Your task to perform on an android device: Go to wifi settings Image 0: 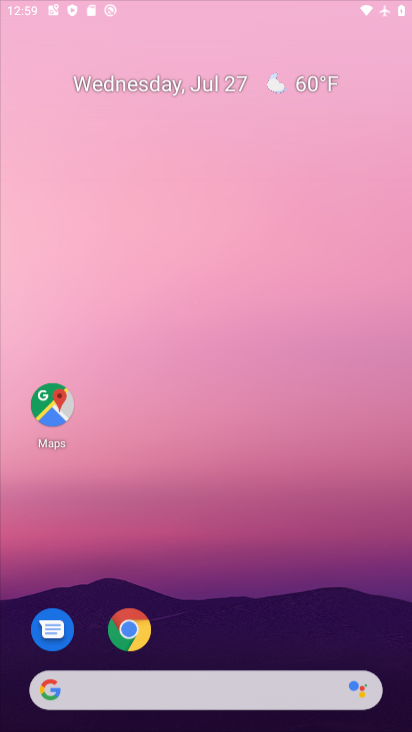
Step 0: press home button
Your task to perform on an android device: Go to wifi settings Image 1: 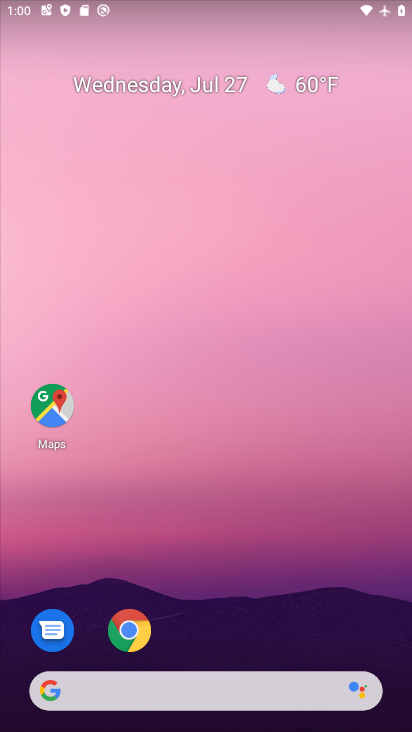
Step 1: drag from (237, 656) to (251, 6)
Your task to perform on an android device: Go to wifi settings Image 2: 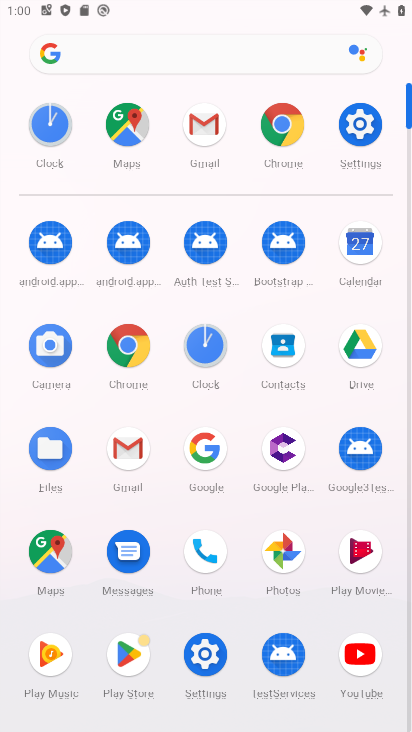
Step 2: click (360, 134)
Your task to perform on an android device: Go to wifi settings Image 3: 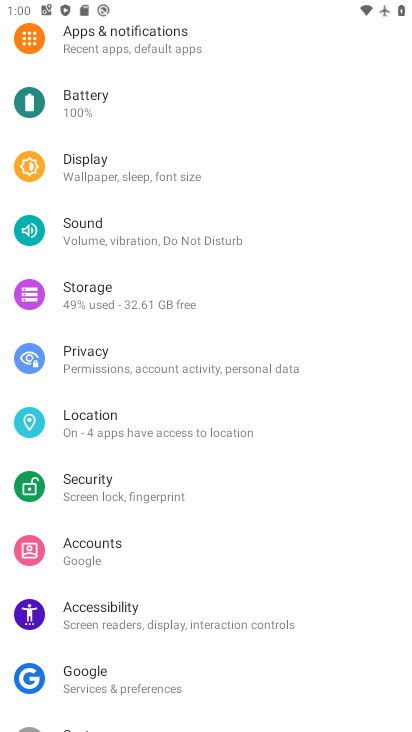
Step 3: drag from (265, 124) to (207, 703)
Your task to perform on an android device: Go to wifi settings Image 4: 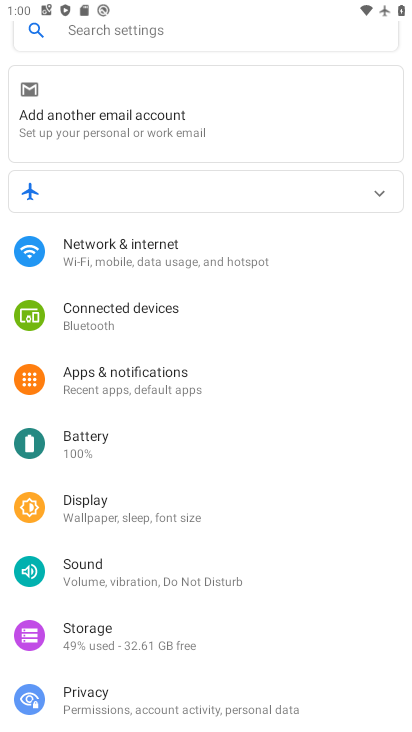
Step 4: click (122, 261)
Your task to perform on an android device: Go to wifi settings Image 5: 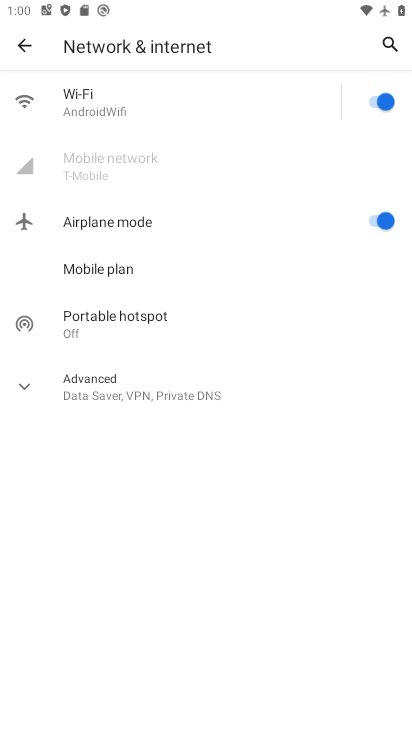
Step 5: click (82, 100)
Your task to perform on an android device: Go to wifi settings Image 6: 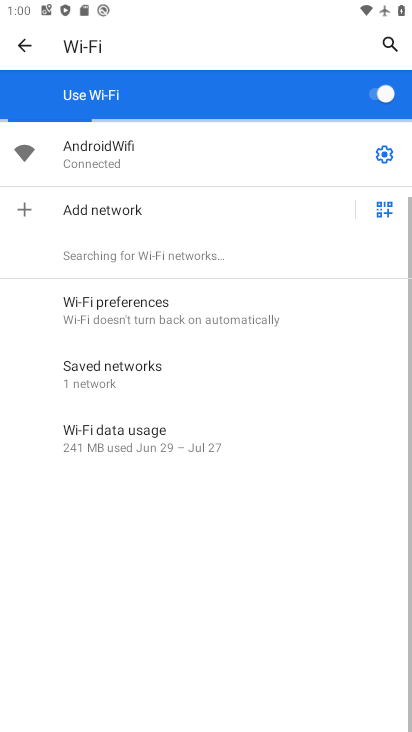
Step 6: task complete